Your task to perform on an android device: Search for seafood restaurants on Google Maps Image 0: 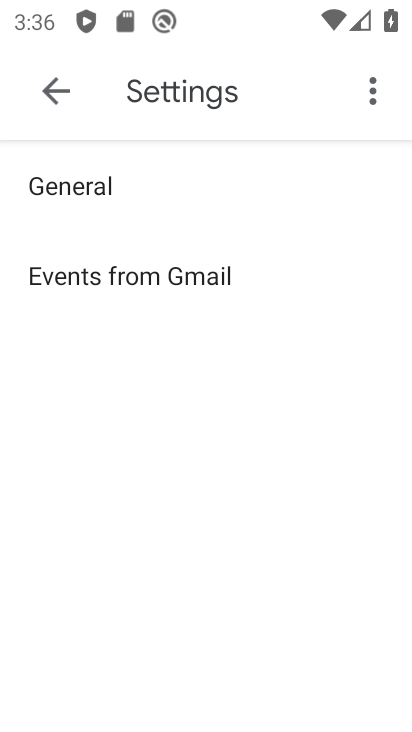
Step 0: press home button
Your task to perform on an android device: Search for seafood restaurants on Google Maps Image 1: 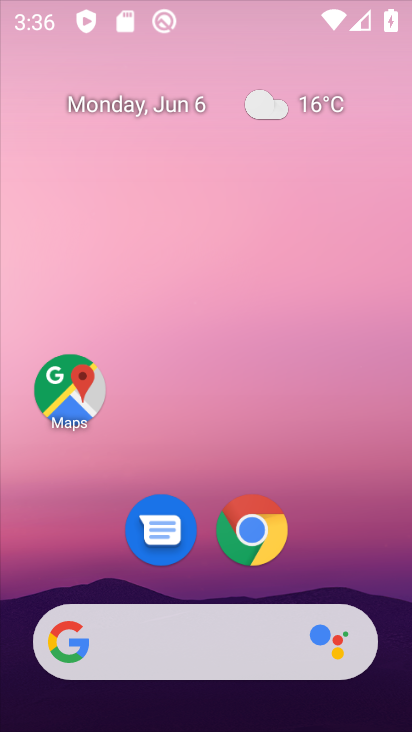
Step 1: click (97, 389)
Your task to perform on an android device: Search for seafood restaurants on Google Maps Image 2: 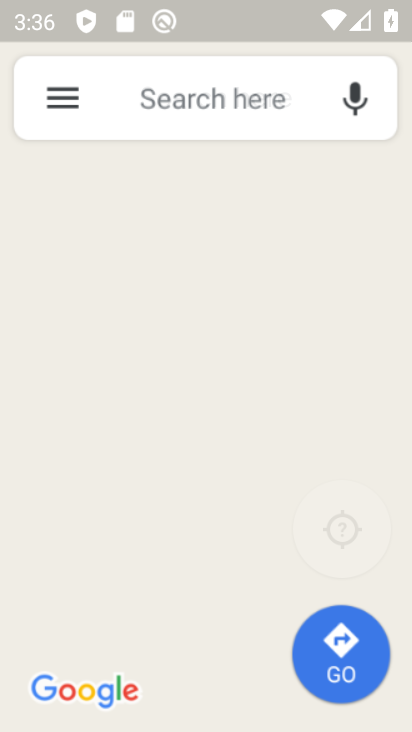
Step 2: click (273, 92)
Your task to perform on an android device: Search for seafood restaurants on Google Maps Image 3: 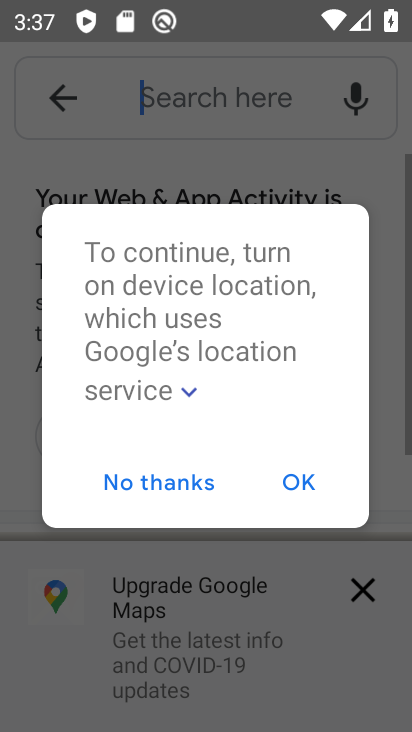
Step 3: click (296, 481)
Your task to perform on an android device: Search for seafood restaurants on Google Maps Image 4: 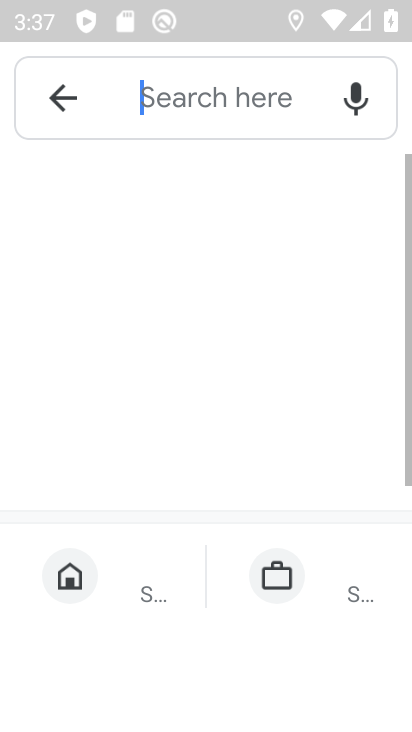
Step 4: click (203, 440)
Your task to perform on an android device: Search for seafood restaurants on Google Maps Image 5: 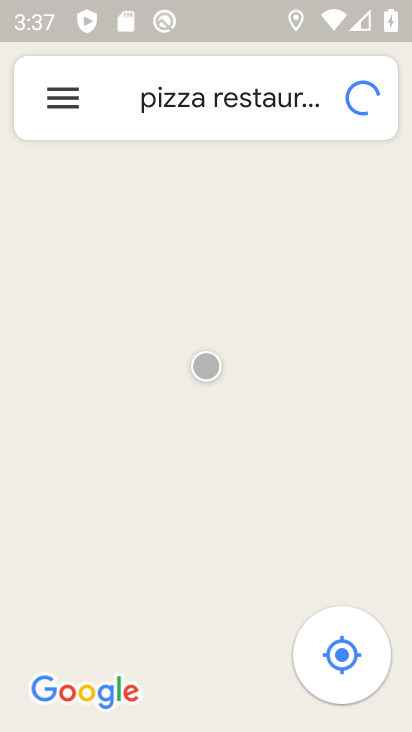
Step 5: click (216, 88)
Your task to perform on an android device: Search for seafood restaurants on Google Maps Image 6: 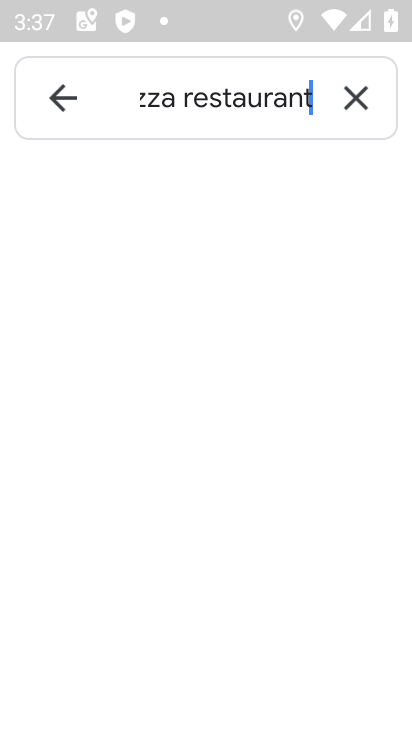
Step 6: click (352, 92)
Your task to perform on an android device: Search for seafood restaurants on Google Maps Image 7: 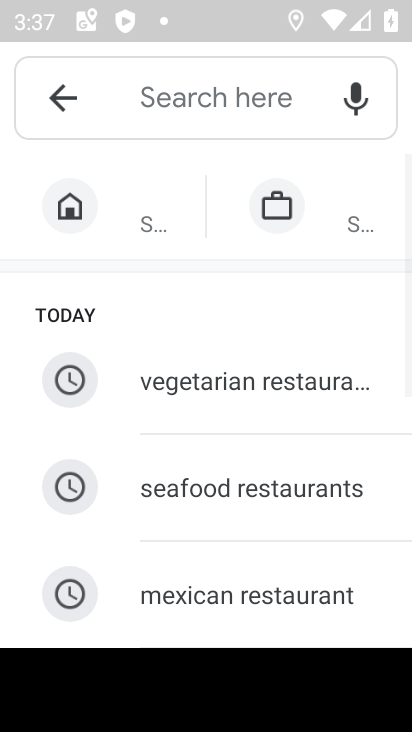
Step 7: click (238, 479)
Your task to perform on an android device: Search for seafood restaurants on Google Maps Image 8: 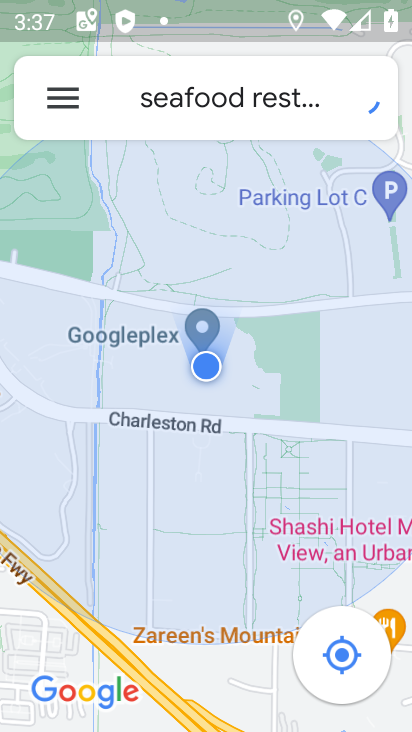
Step 8: task complete